Your task to perform on an android device: star an email in the gmail app Image 0: 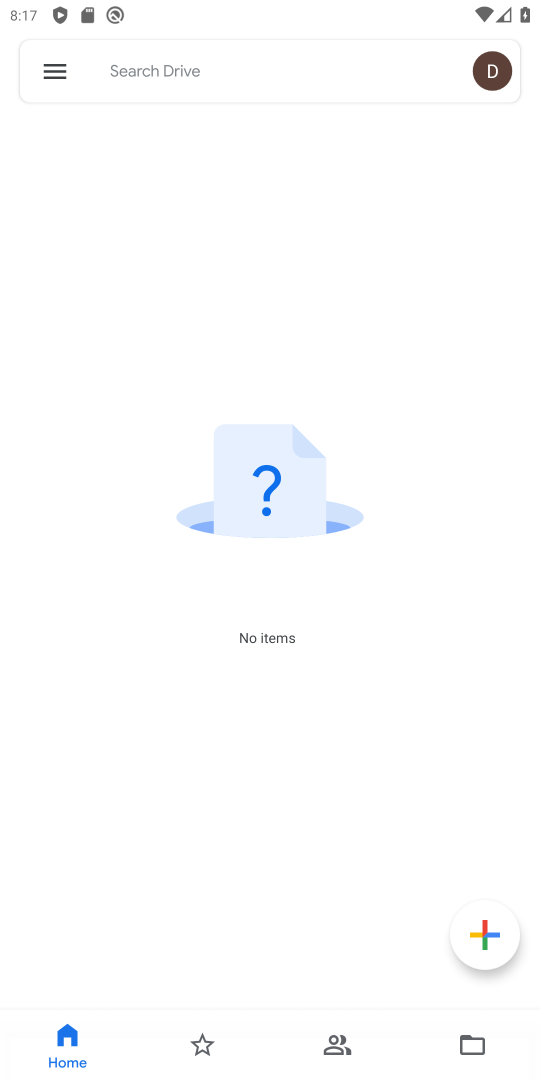
Step 0: drag from (292, 796) to (408, 348)
Your task to perform on an android device: star an email in the gmail app Image 1: 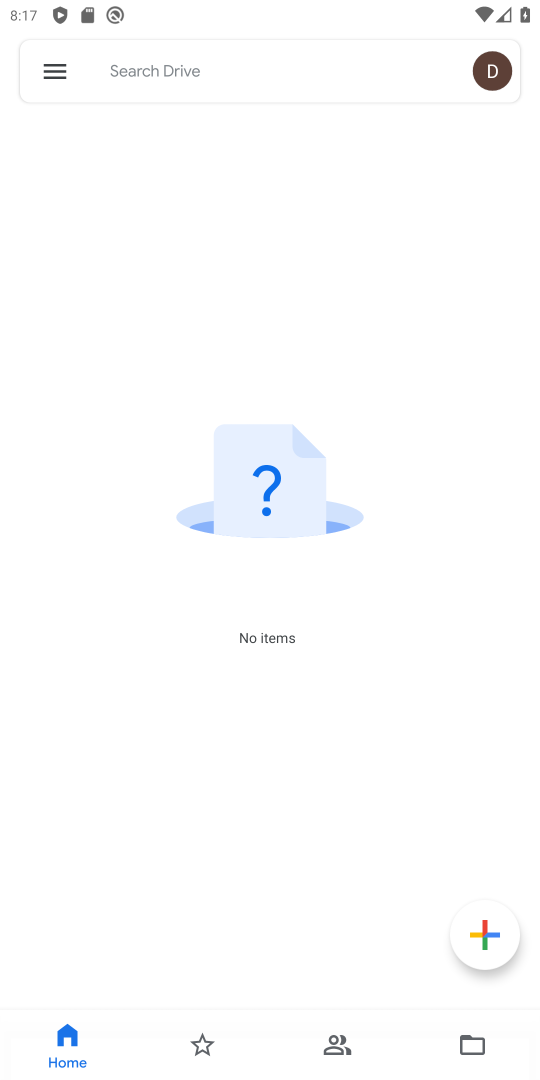
Step 1: press home button
Your task to perform on an android device: star an email in the gmail app Image 2: 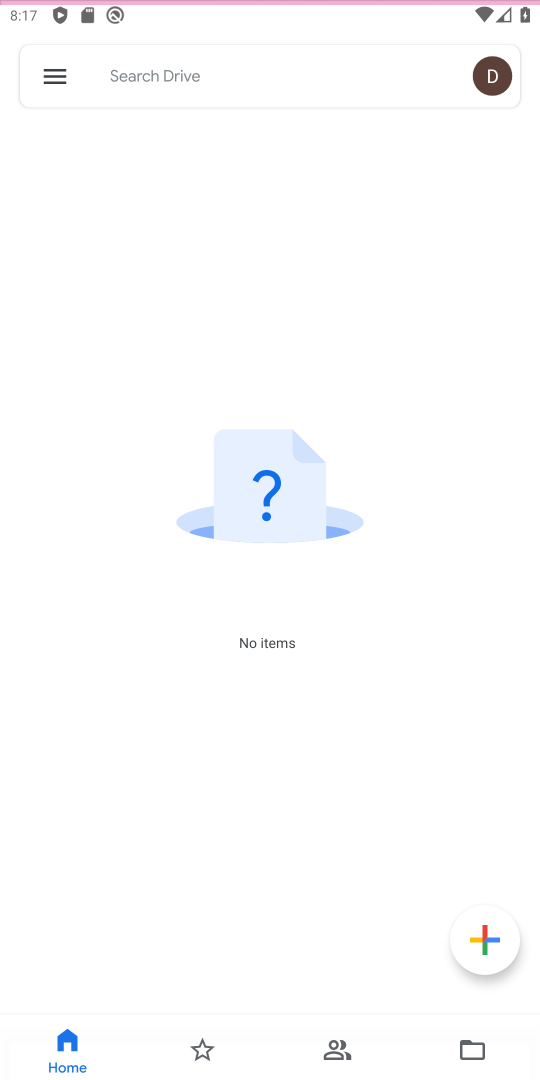
Step 2: drag from (221, 818) to (251, 44)
Your task to perform on an android device: star an email in the gmail app Image 3: 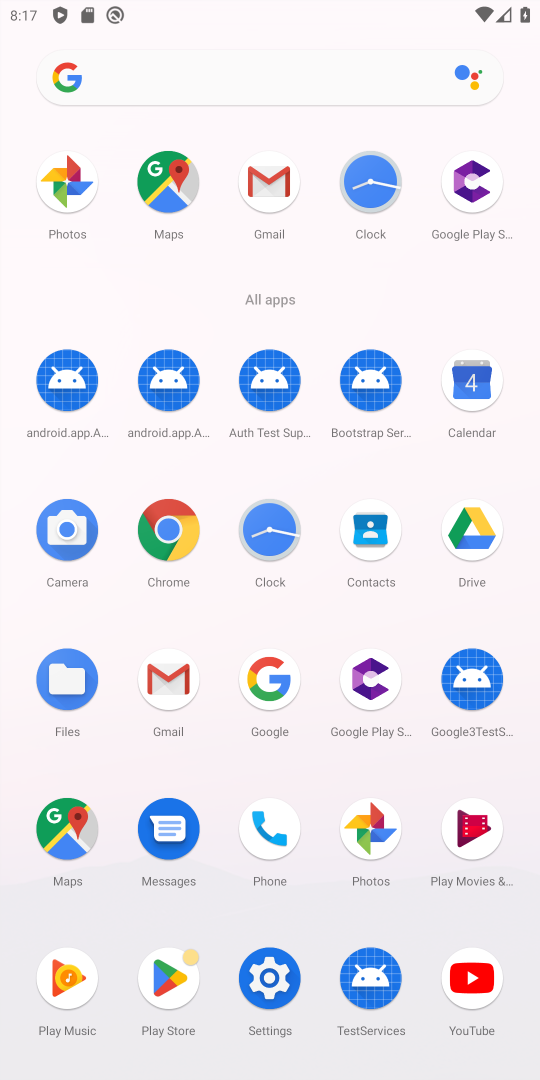
Step 3: drag from (225, 897) to (293, 377)
Your task to perform on an android device: star an email in the gmail app Image 4: 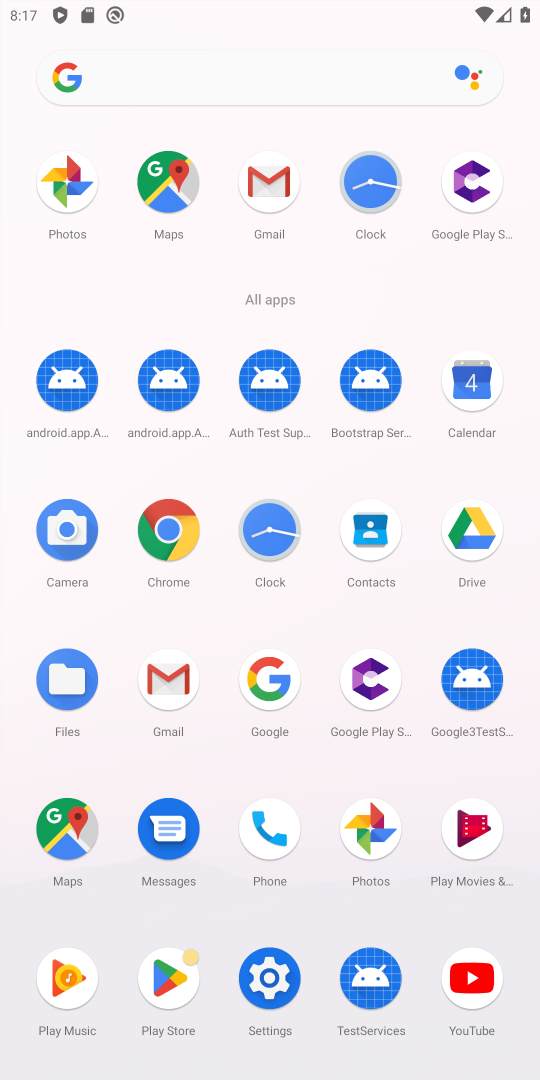
Step 4: click (179, 658)
Your task to perform on an android device: star an email in the gmail app Image 5: 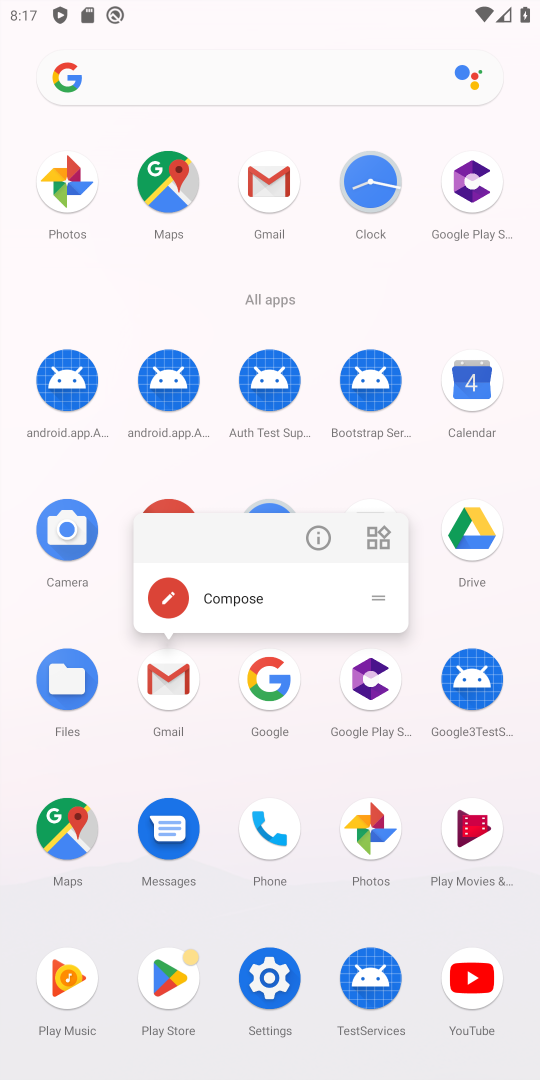
Step 5: click (324, 526)
Your task to perform on an android device: star an email in the gmail app Image 6: 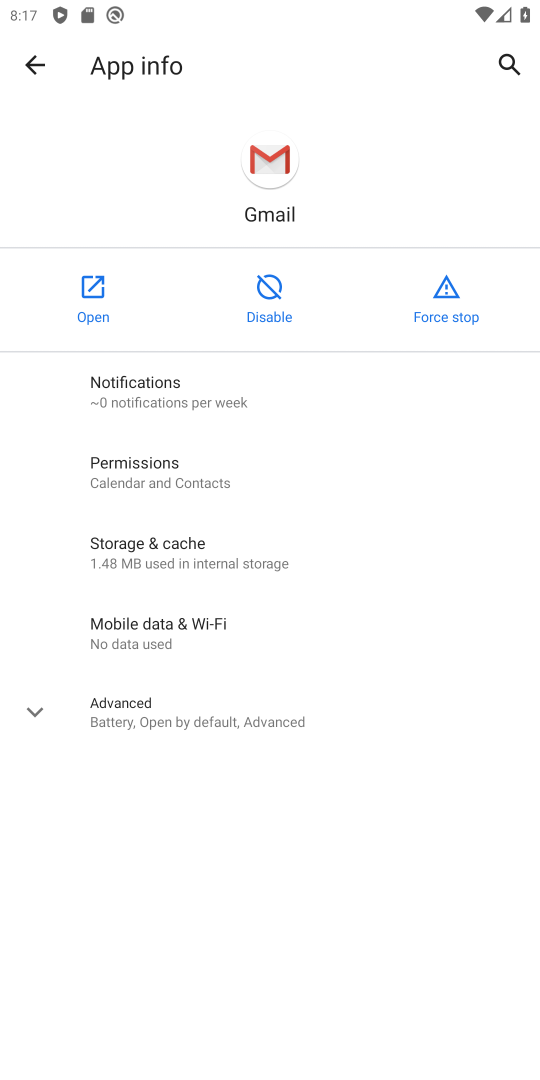
Step 6: click (83, 308)
Your task to perform on an android device: star an email in the gmail app Image 7: 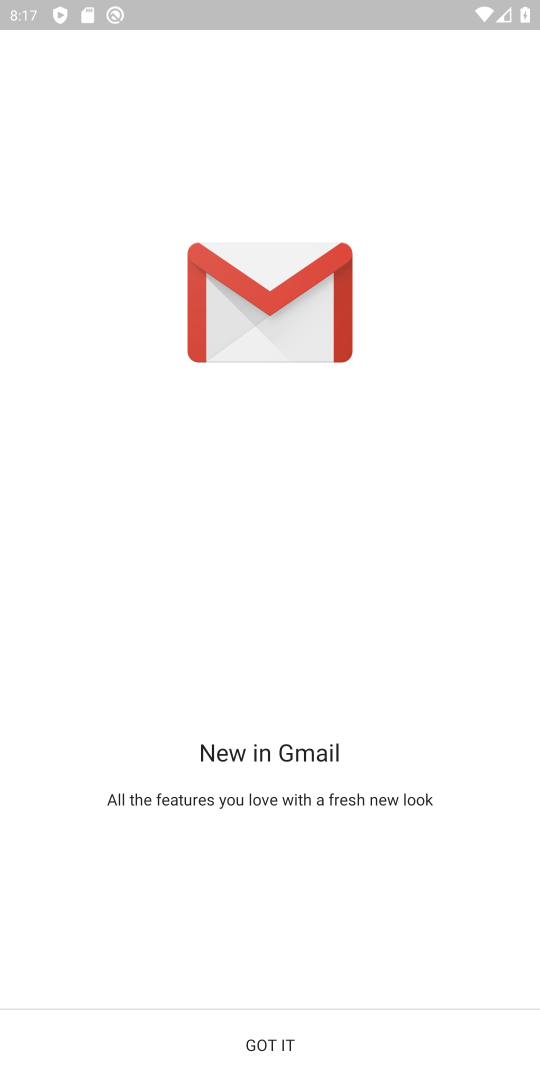
Step 7: click (239, 1058)
Your task to perform on an android device: star an email in the gmail app Image 8: 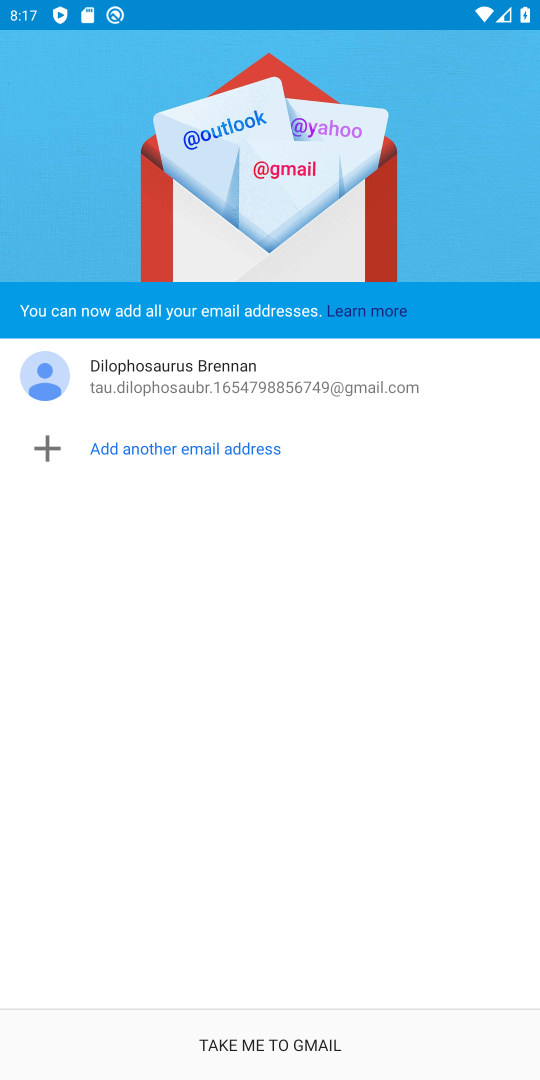
Step 8: click (276, 1017)
Your task to perform on an android device: star an email in the gmail app Image 9: 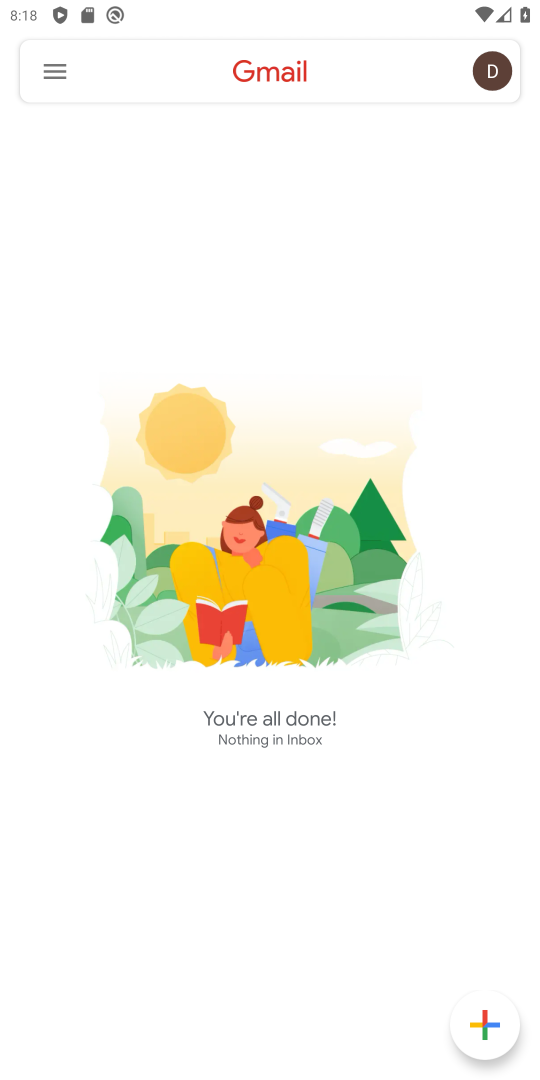
Step 9: drag from (325, 339) to (515, 864)
Your task to perform on an android device: star an email in the gmail app Image 10: 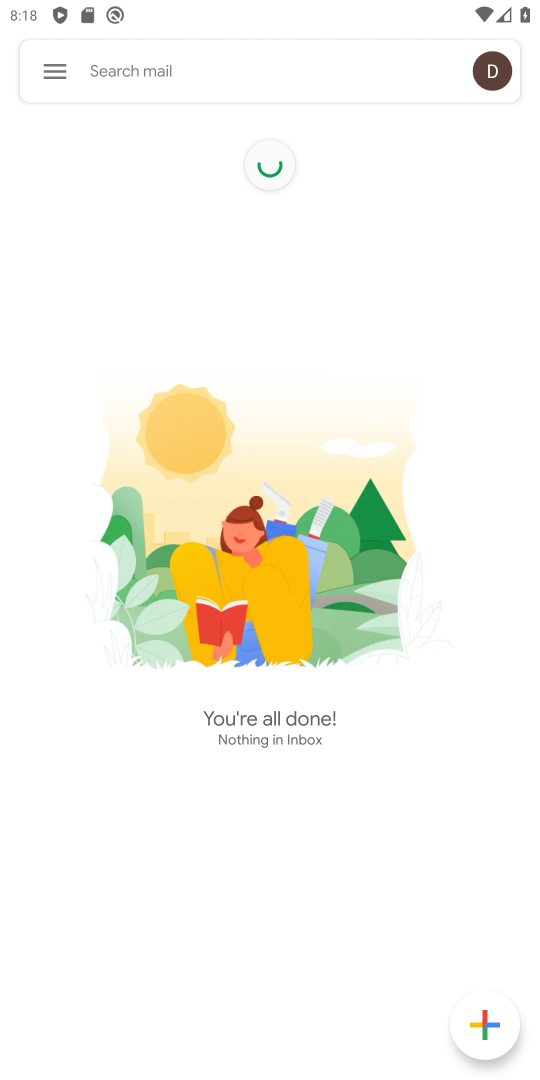
Step 10: click (52, 62)
Your task to perform on an android device: star an email in the gmail app Image 11: 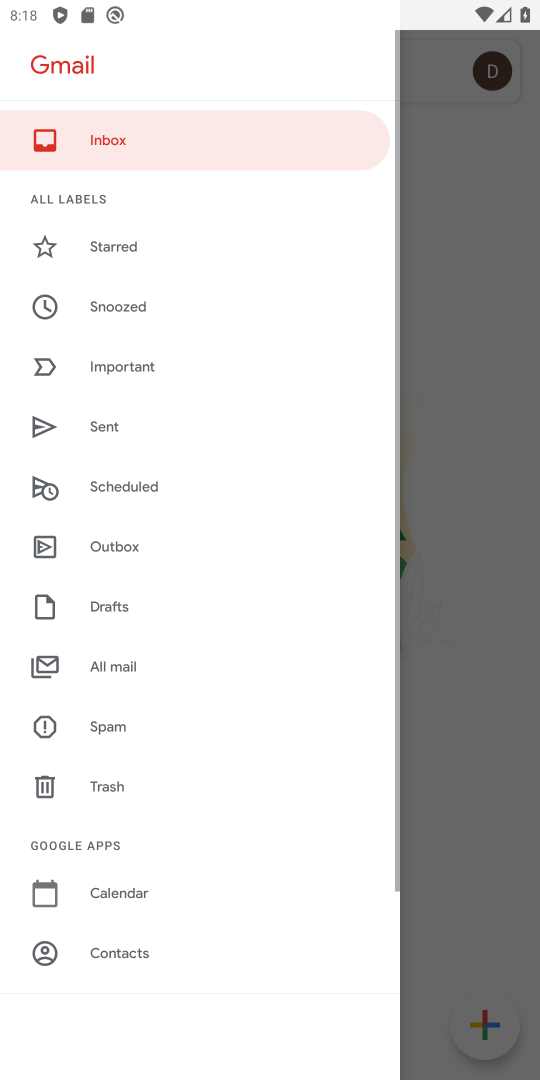
Step 11: click (121, 151)
Your task to perform on an android device: star an email in the gmail app Image 12: 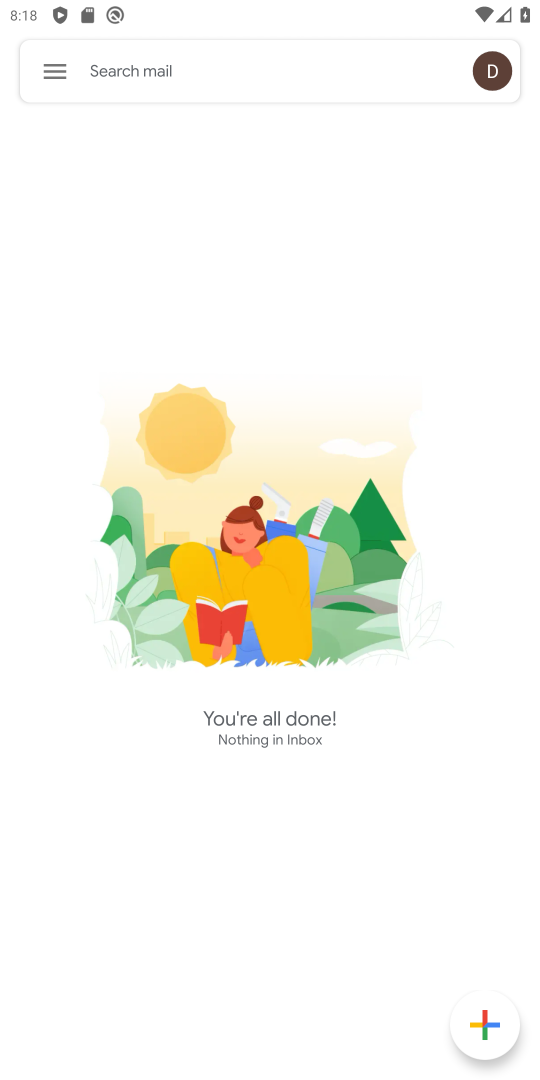
Step 12: task complete